Your task to perform on an android device: turn off priority inbox in the gmail app Image 0: 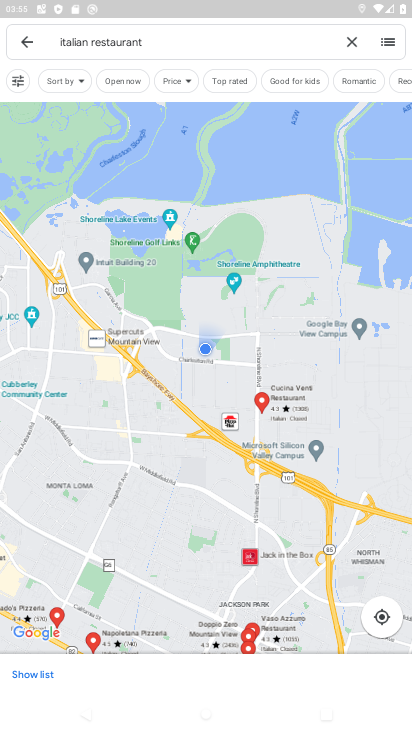
Step 0: task complete